Your task to perform on an android device: Open Google Image 0: 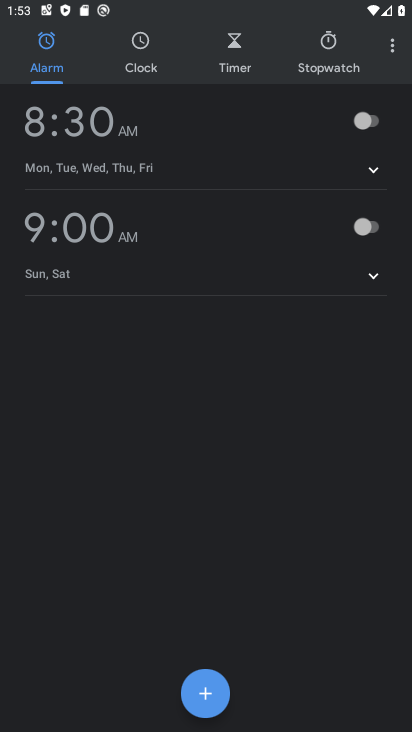
Step 0: press home button
Your task to perform on an android device: Open Google Image 1: 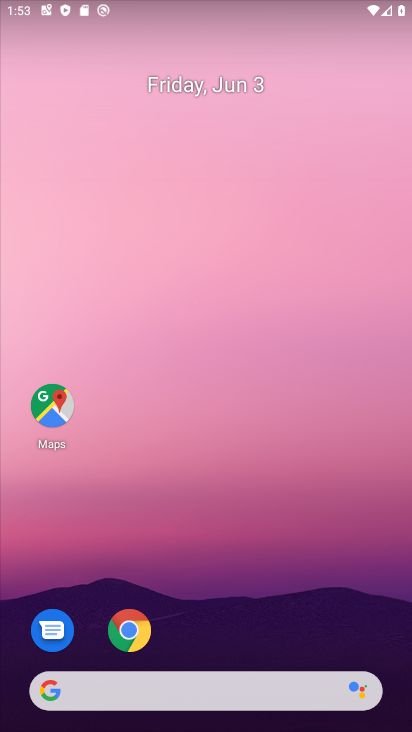
Step 1: drag from (222, 724) to (190, 198)
Your task to perform on an android device: Open Google Image 2: 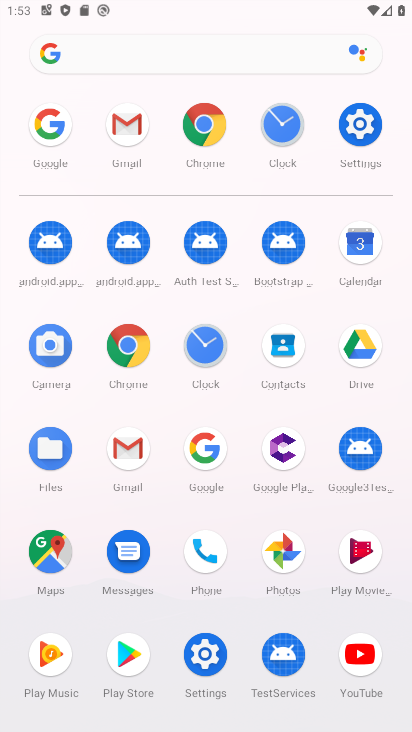
Step 2: click (209, 444)
Your task to perform on an android device: Open Google Image 3: 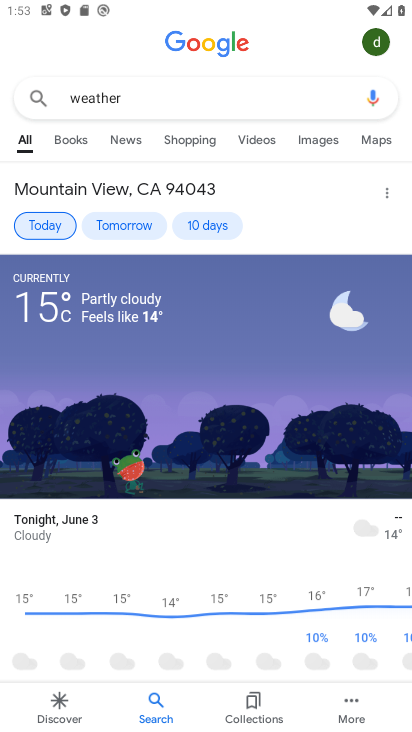
Step 3: task complete